Your task to perform on an android device: Go to display settings Image 0: 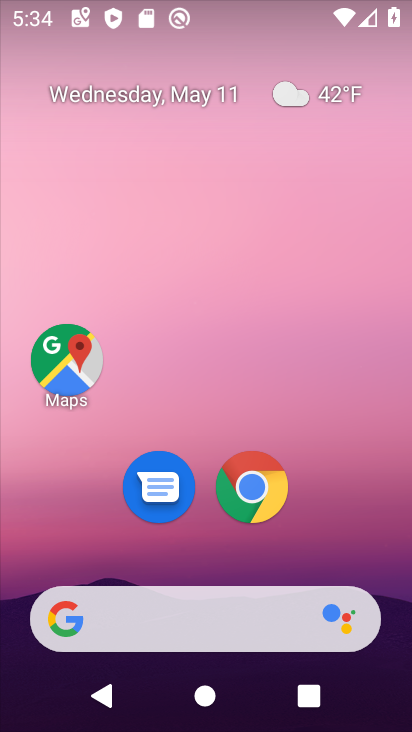
Step 0: drag from (227, 571) to (245, 0)
Your task to perform on an android device: Go to display settings Image 1: 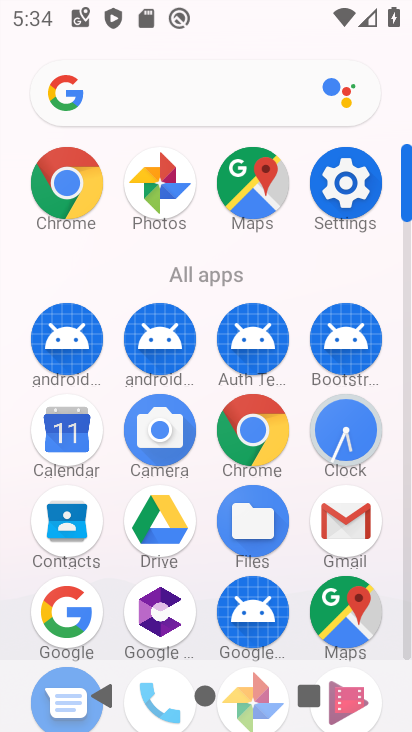
Step 1: click (354, 198)
Your task to perform on an android device: Go to display settings Image 2: 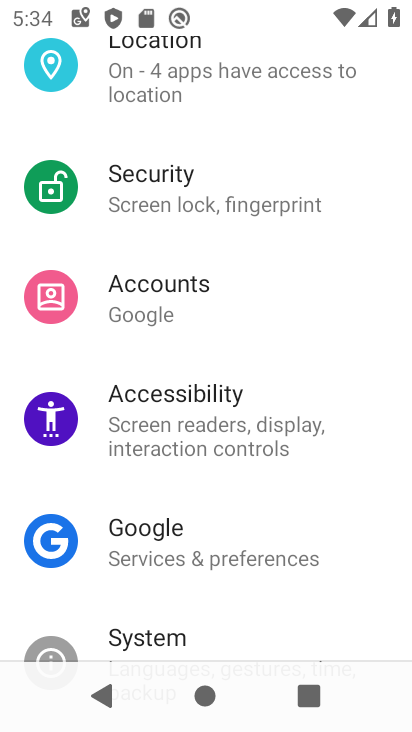
Step 2: drag from (252, 242) to (241, 631)
Your task to perform on an android device: Go to display settings Image 3: 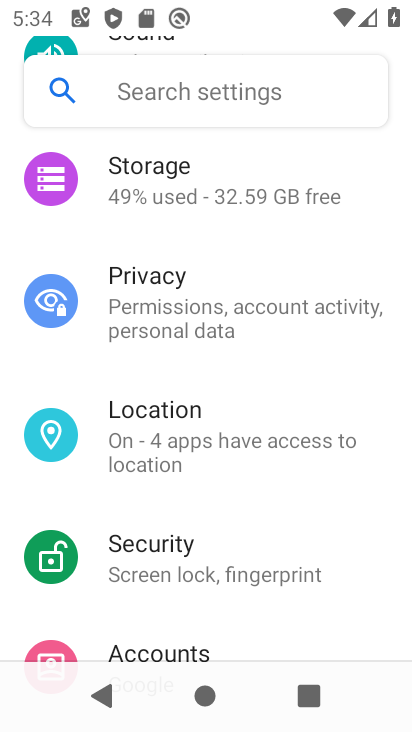
Step 3: drag from (272, 342) to (249, 730)
Your task to perform on an android device: Go to display settings Image 4: 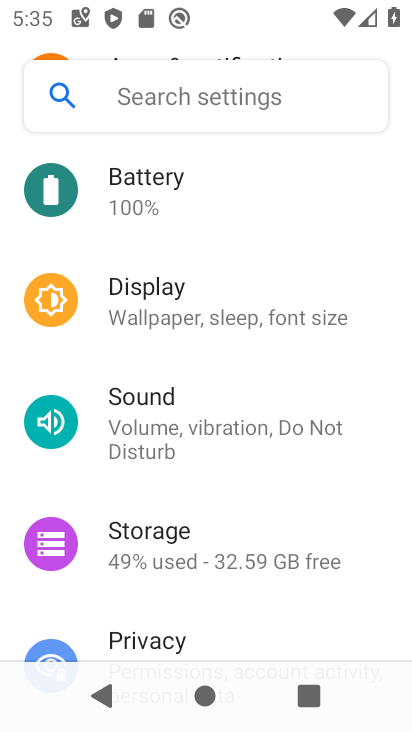
Step 4: click (197, 316)
Your task to perform on an android device: Go to display settings Image 5: 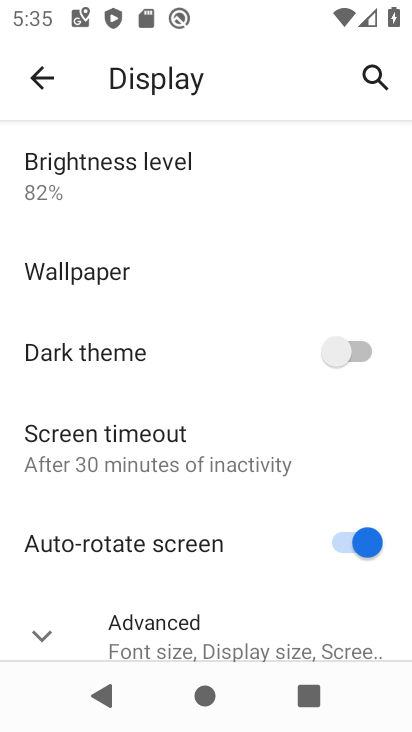
Step 5: task complete